Your task to perform on an android device: turn on airplane mode Image 0: 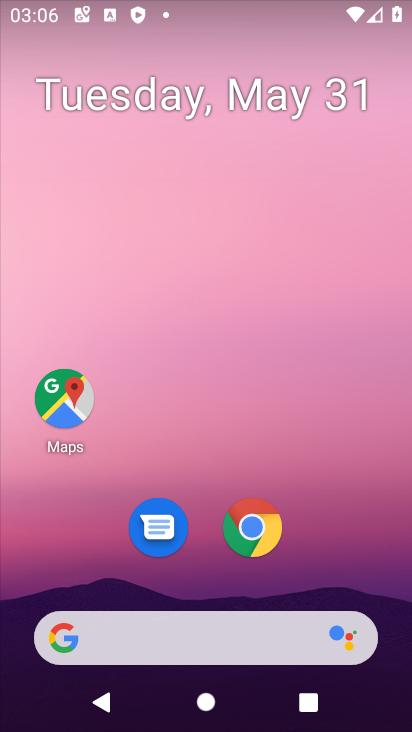
Step 0: drag from (404, 639) to (321, 145)
Your task to perform on an android device: turn on airplane mode Image 1: 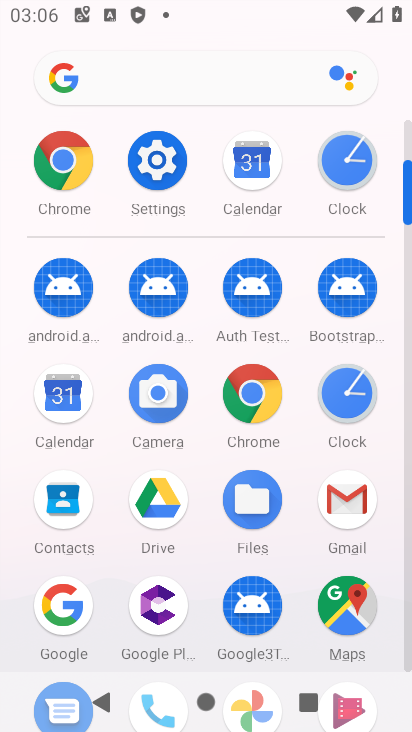
Step 1: click (409, 659)
Your task to perform on an android device: turn on airplane mode Image 2: 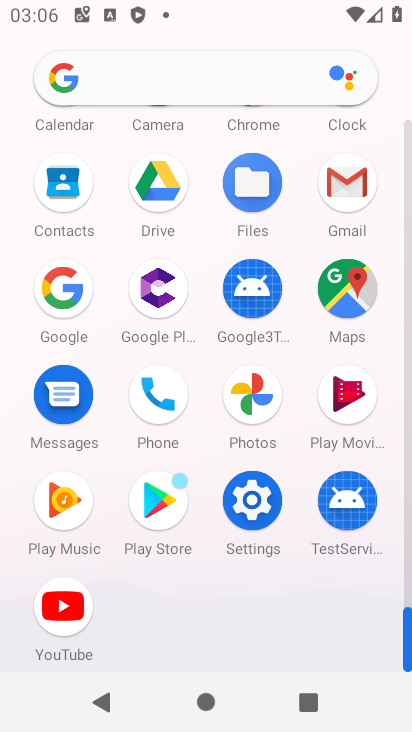
Step 2: click (254, 502)
Your task to perform on an android device: turn on airplane mode Image 3: 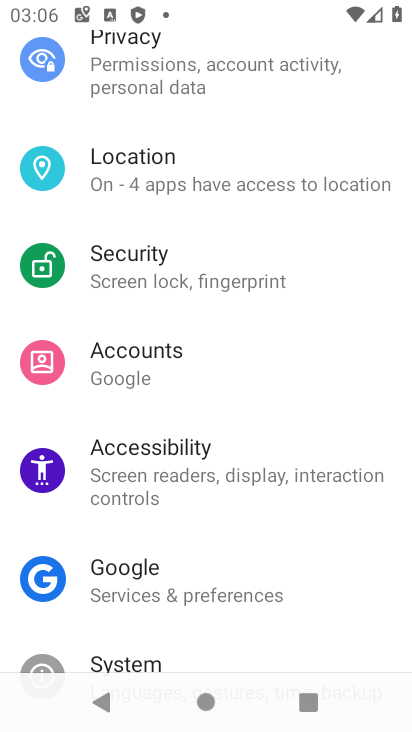
Step 3: drag from (350, 193) to (339, 404)
Your task to perform on an android device: turn on airplane mode Image 4: 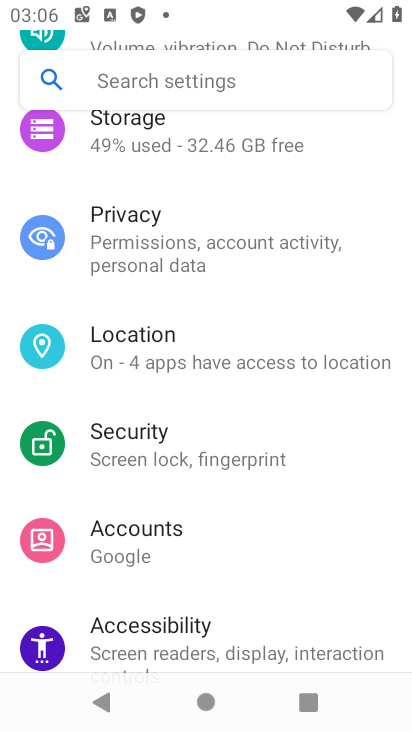
Step 4: drag from (347, 212) to (352, 473)
Your task to perform on an android device: turn on airplane mode Image 5: 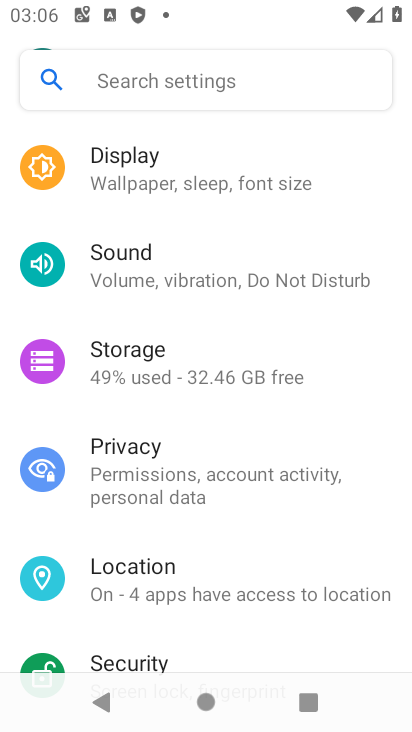
Step 5: drag from (358, 220) to (355, 559)
Your task to perform on an android device: turn on airplane mode Image 6: 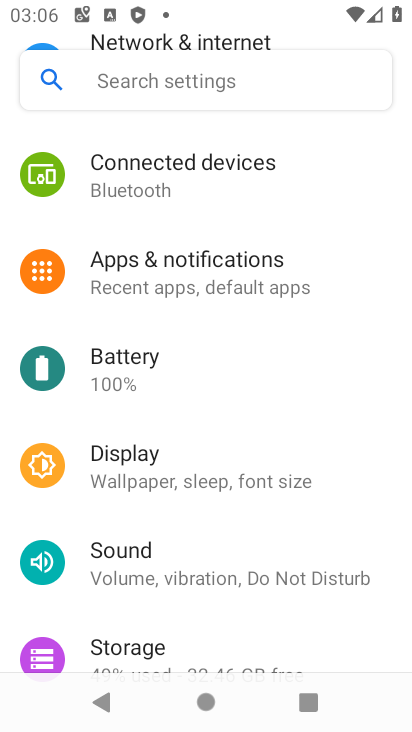
Step 6: drag from (355, 292) to (364, 557)
Your task to perform on an android device: turn on airplane mode Image 7: 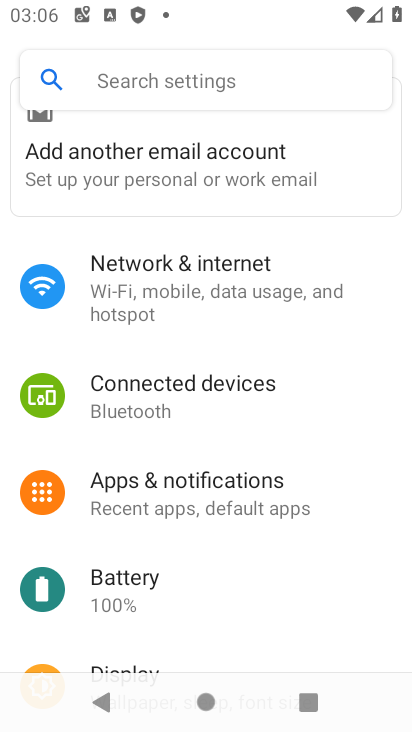
Step 7: click (134, 280)
Your task to perform on an android device: turn on airplane mode Image 8: 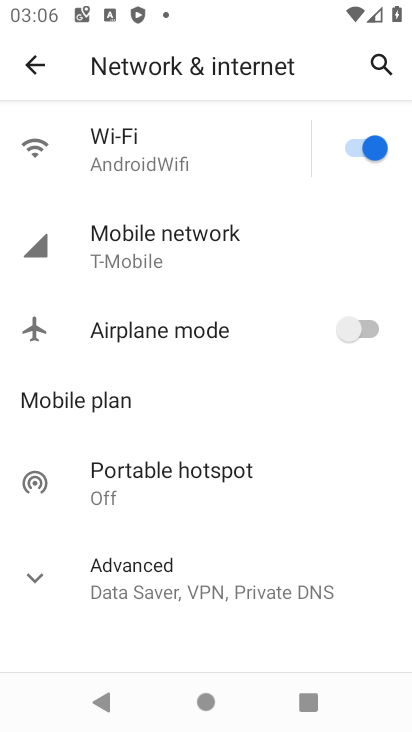
Step 8: click (371, 324)
Your task to perform on an android device: turn on airplane mode Image 9: 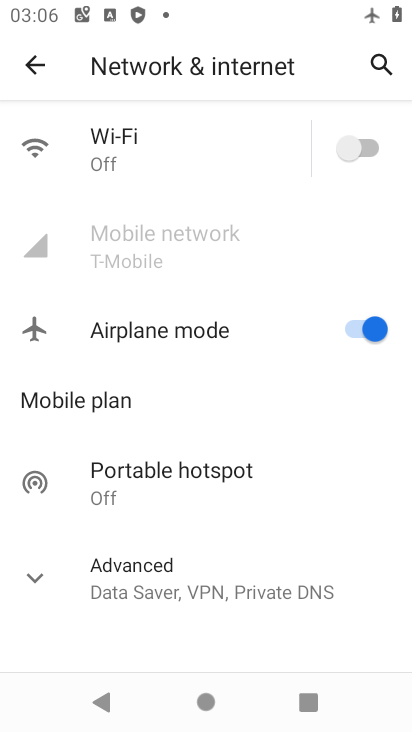
Step 9: task complete